Your task to perform on an android device: Open Chrome and go to the settings page Image 0: 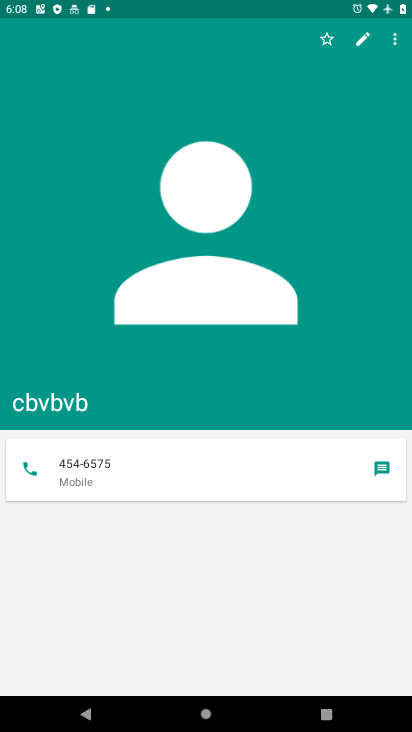
Step 0: press home button
Your task to perform on an android device: Open Chrome and go to the settings page Image 1: 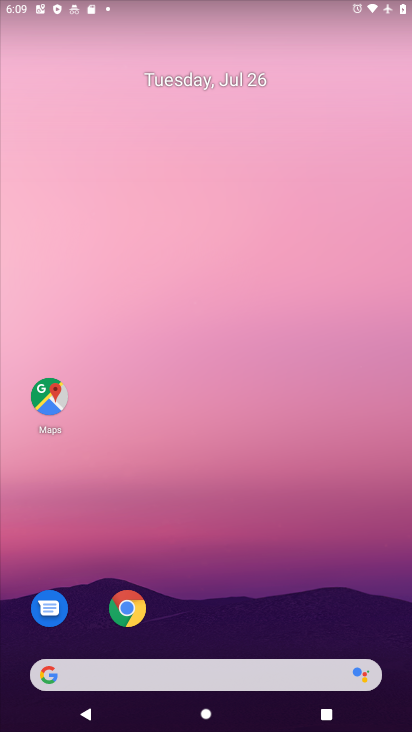
Step 1: drag from (258, 646) to (281, 232)
Your task to perform on an android device: Open Chrome and go to the settings page Image 2: 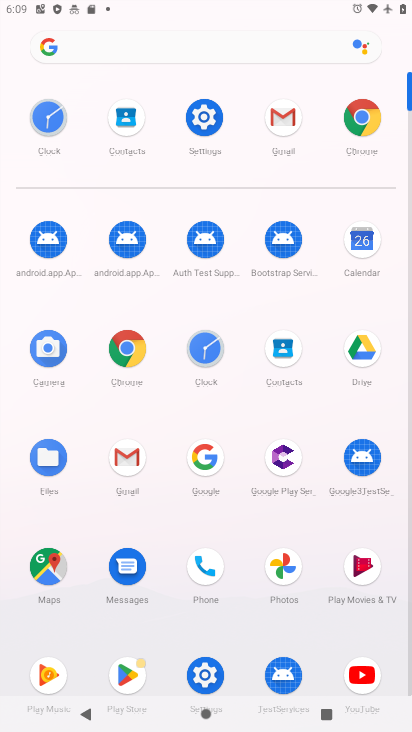
Step 2: click (364, 129)
Your task to perform on an android device: Open Chrome and go to the settings page Image 3: 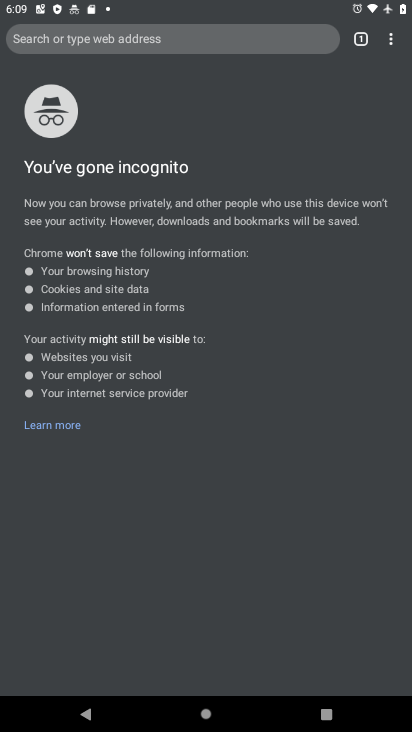
Step 3: task complete